Your task to perform on an android device: change your default location settings in chrome Image 0: 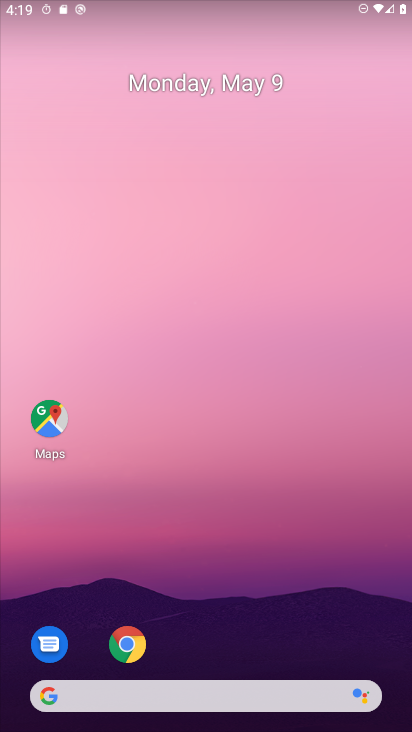
Step 0: drag from (234, 542) to (261, 47)
Your task to perform on an android device: change your default location settings in chrome Image 1: 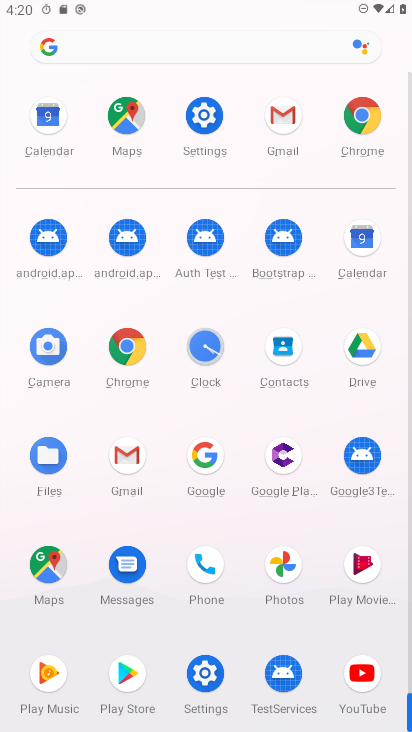
Step 1: click (129, 375)
Your task to perform on an android device: change your default location settings in chrome Image 2: 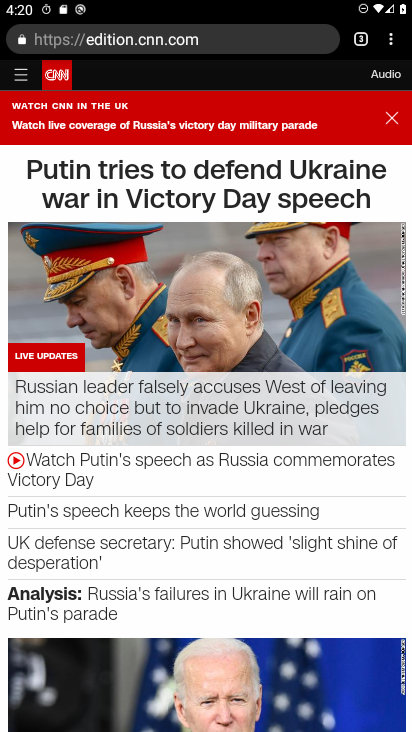
Step 2: click (390, 40)
Your task to perform on an android device: change your default location settings in chrome Image 3: 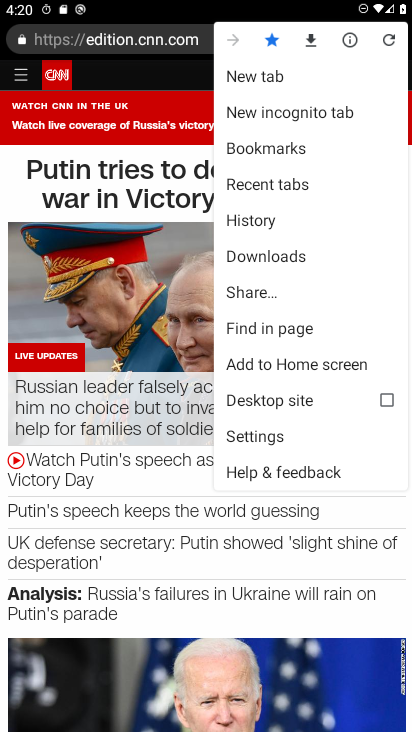
Step 3: click (287, 438)
Your task to perform on an android device: change your default location settings in chrome Image 4: 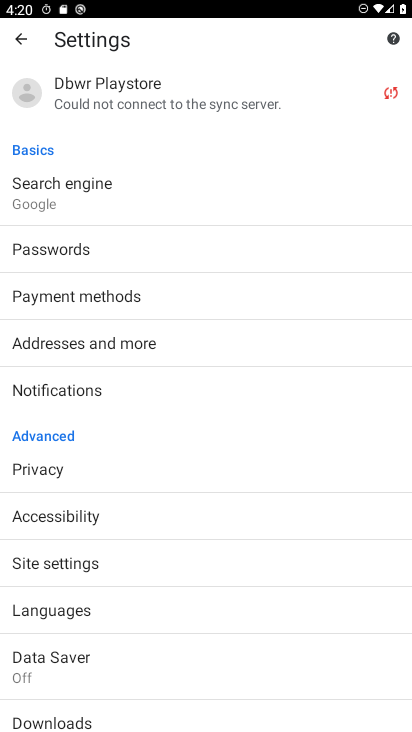
Step 4: click (61, 573)
Your task to perform on an android device: change your default location settings in chrome Image 5: 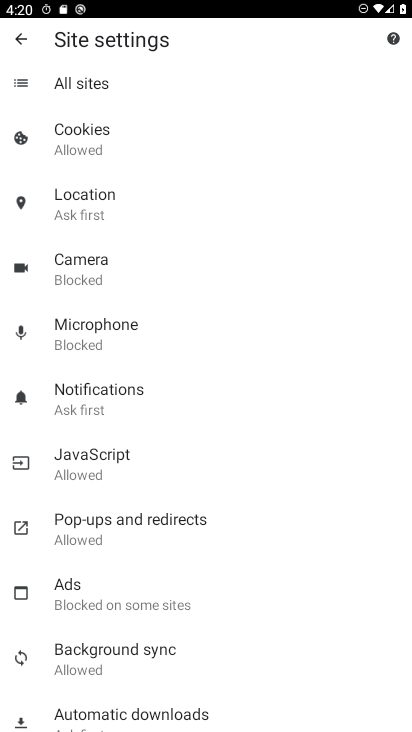
Step 5: click (80, 229)
Your task to perform on an android device: change your default location settings in chrome Image 6: 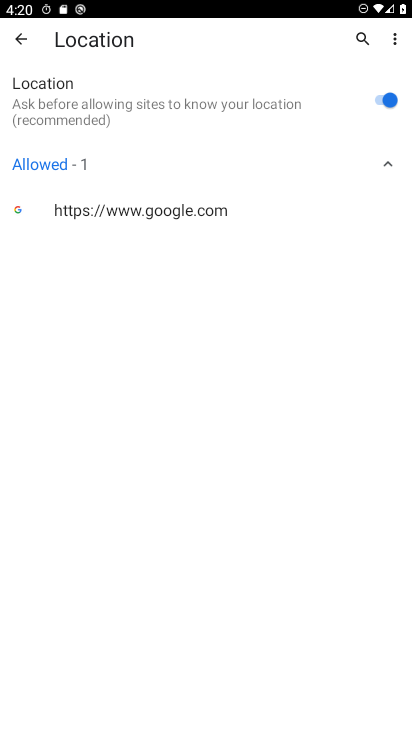
Step 6: click (385, 103)
Your task to perform on an android device: change your default location settings in chrome Image 7: 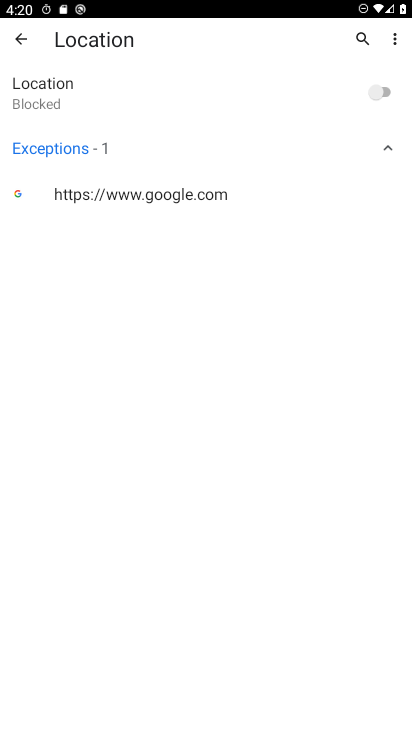
Step 7: task complete